Your task to perform on an android device: Go to Maps Image 0: 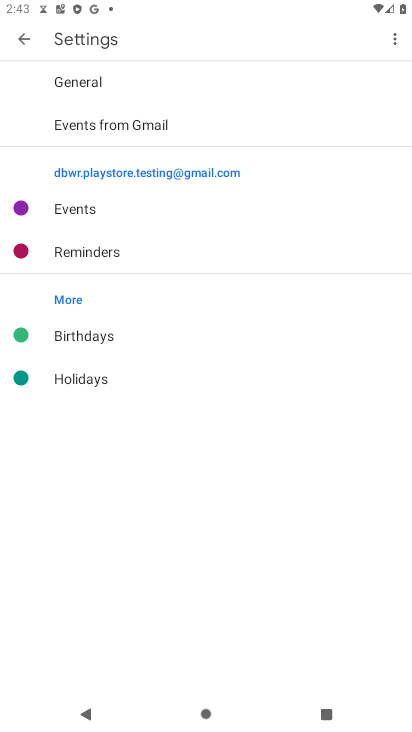
Step 0: press home button
Your task to perform on an android device: Go to Maps Image 1: 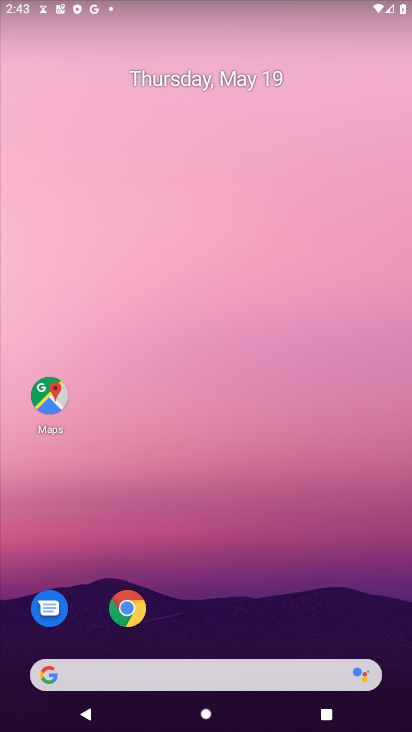
Step 1: click (51, 391)
Your task to perform on an android device: Go to Maps Image 2: 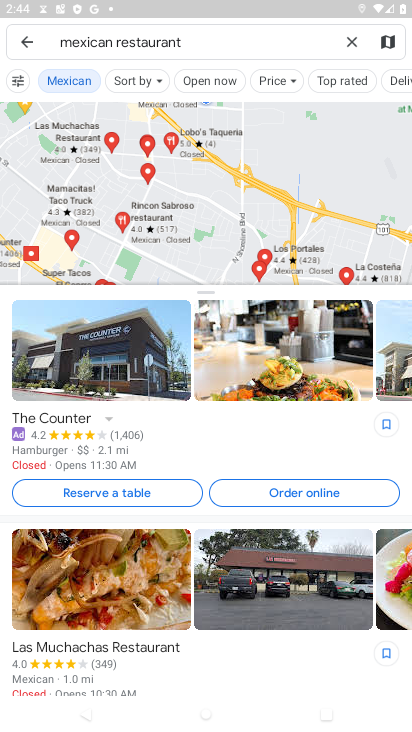
Step 2: task complete